Your task to perform on an android device: Open the map Image 0: 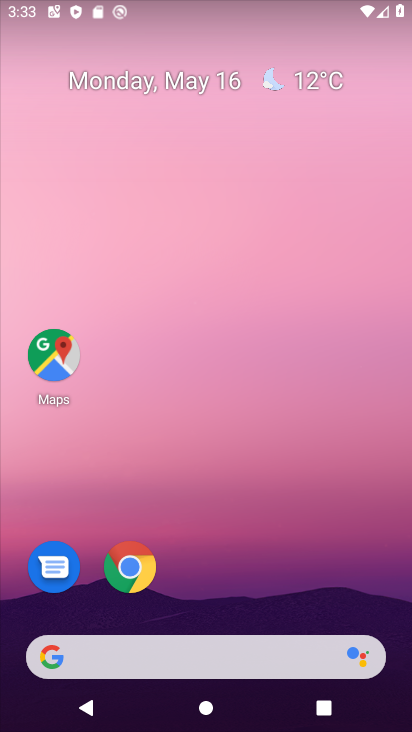
Step 0: drag from (279, 539) to (252, 0)
Your task to perform on an android device: Open the map Image 1: 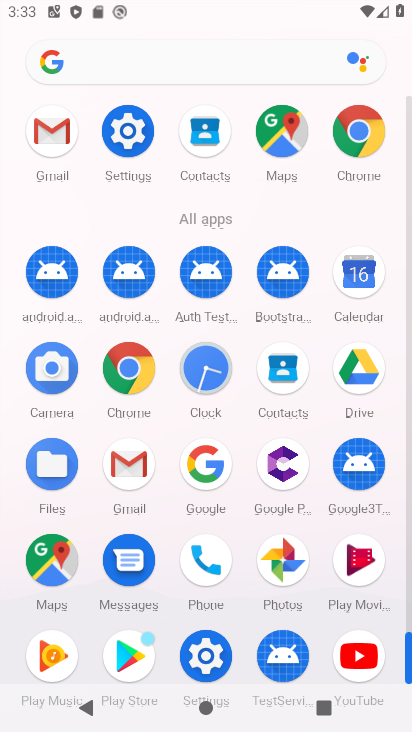
Step 1: drag from (0, 529) to (7, 282)
Your task to perform on an android device: Open the map Image 2: 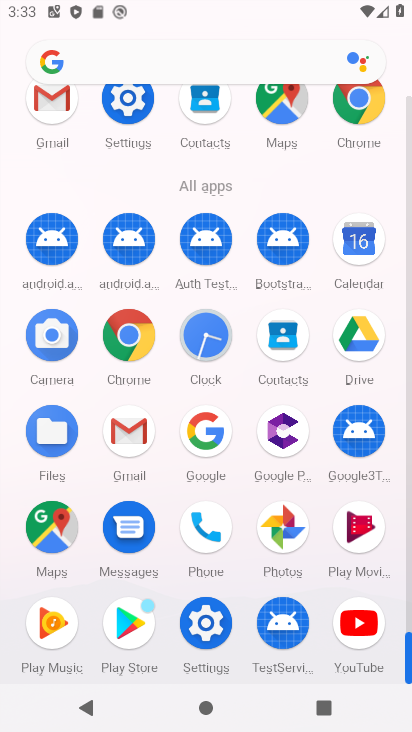
Step 2: click (51, 520)
Your task to perform on an android device: Open the map Image 3: 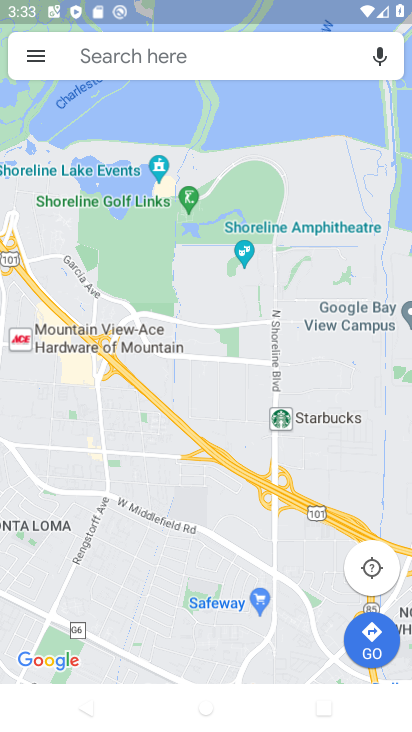
Step 3: task complete